Your task to perform on an android device: Show me productivity apps on the Play Store Image 0: 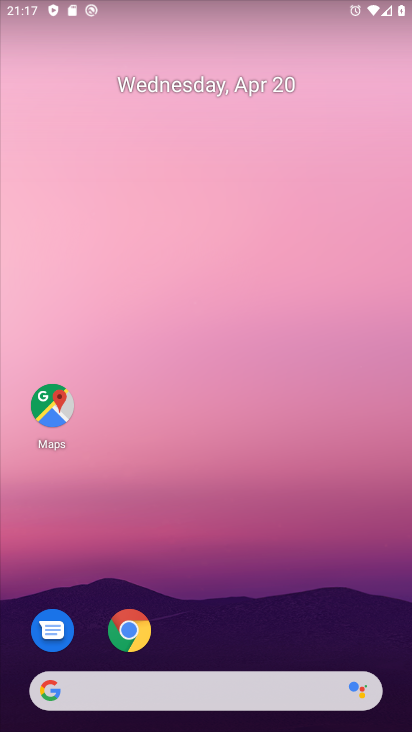
Step 0: drag from (243, 608) to (228, 179)
Your task to perform on an android device: Show me productivity apps on the Play Store Image 1: 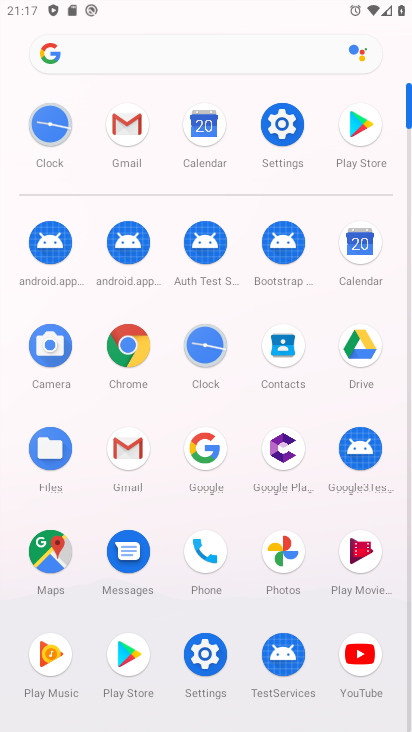
Step 1: click (367, 132)
Your task to perform on an android device: Show me productivity apps on the Play Store Image 2: 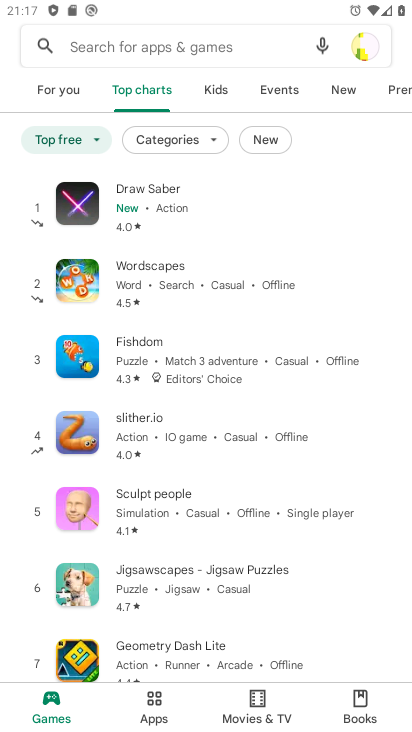
Step 2: click (103, 41)
Your task to perform on an android device: Show me productivity apps on the Play Store Image 3: 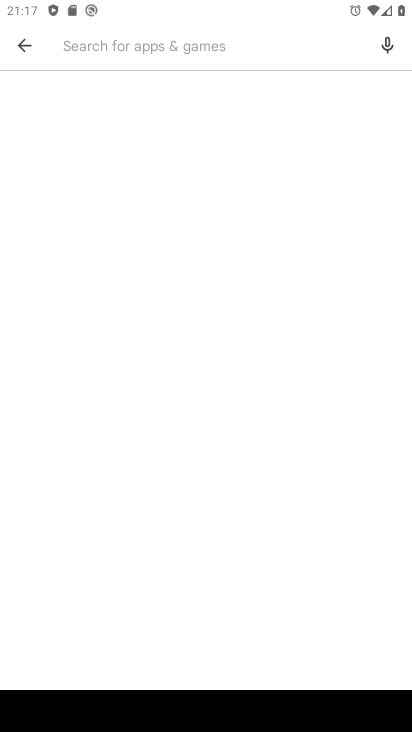
Step 3: type "productivity app"
Your task to perform on an android device: Show me productivity apps on the Play Store Image 4: 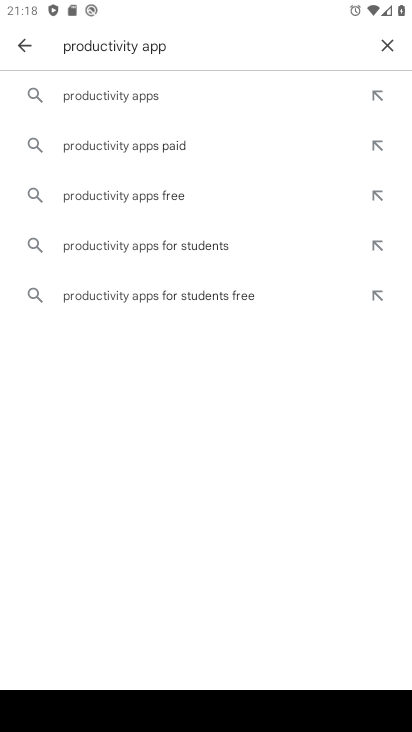
Step 4: click (98, 98)
Your task to perform on an android device: Show me productivity apps on the Play Store Image 5: 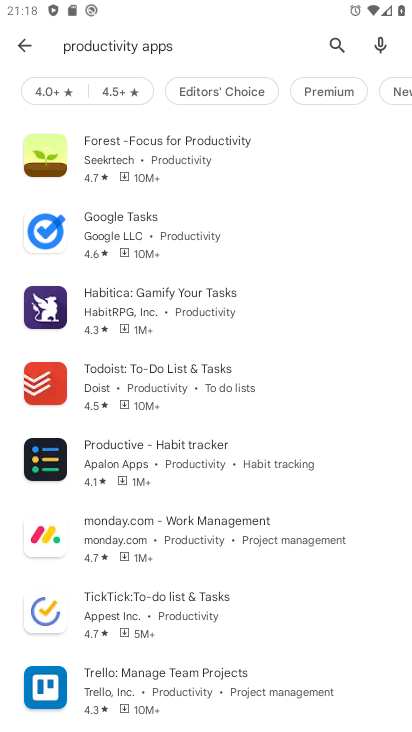
Step 5: task complete